Your task to perform on an android device: set the timer Image 0: 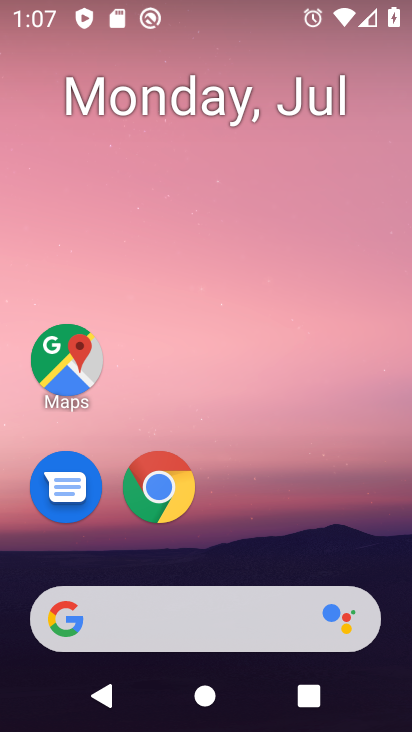
Step 0: press home button
Your task to perform on an android device: set the timer Image 1: 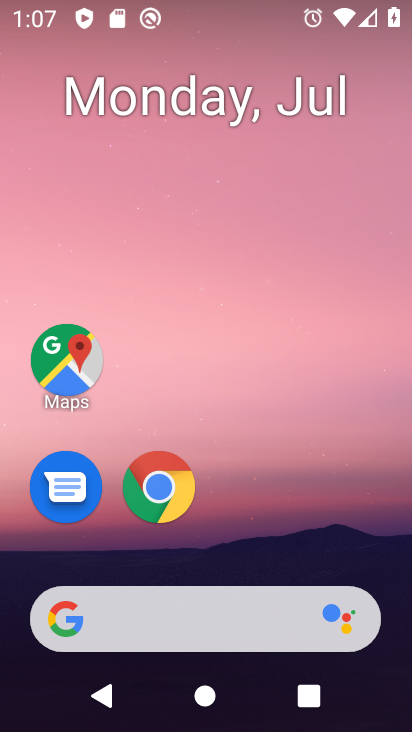
Step 1: drag from (351, 542) to (336, 84)
Your task to perform on an android device: set the timer Image 2: 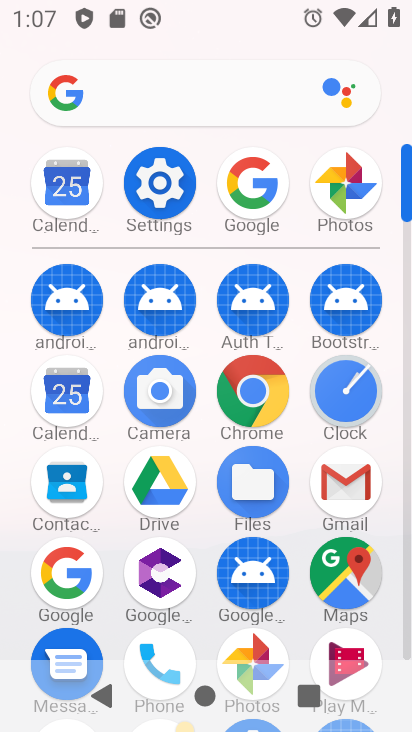
Step 2: click (327, 387)
Your task to perform on an android device: set the timer Image 3: 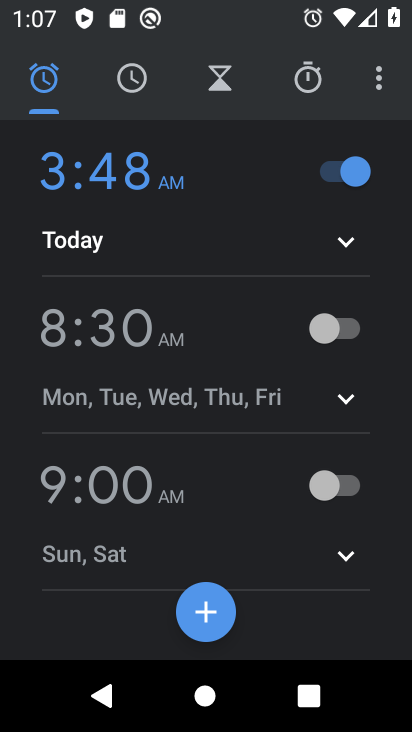
Step 3: click (313, 76)
Your task to perform on an android device: set the timer Image 4: 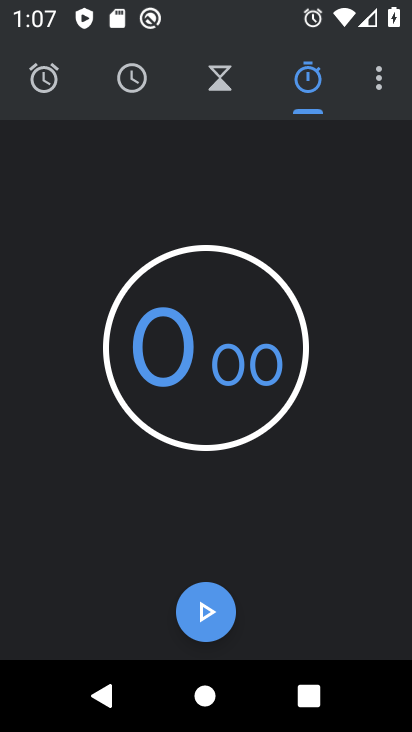
Step 4: click (208, 597)
Your task to perform on an android device: set the timer Image 5: 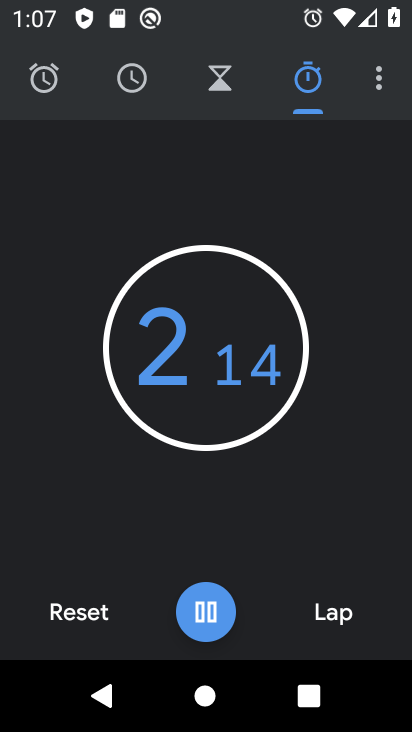
Step 5: click (201, 617)
Your task to perform on an android device: set the timer Image 6: 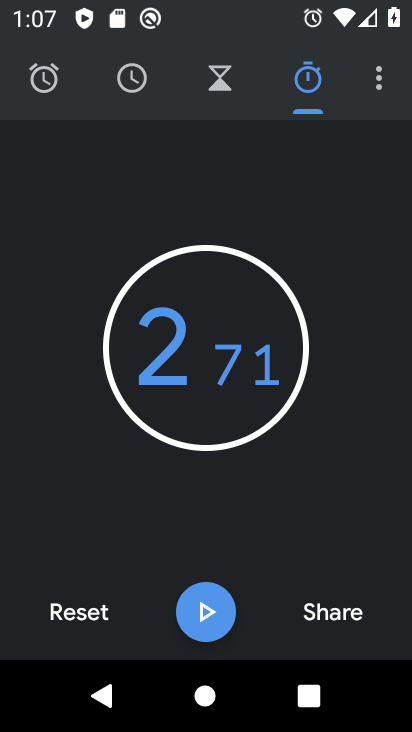
Step 6: task complete